Your task to perform on an android device: toggle priority inbox in the gmail app Image 0: 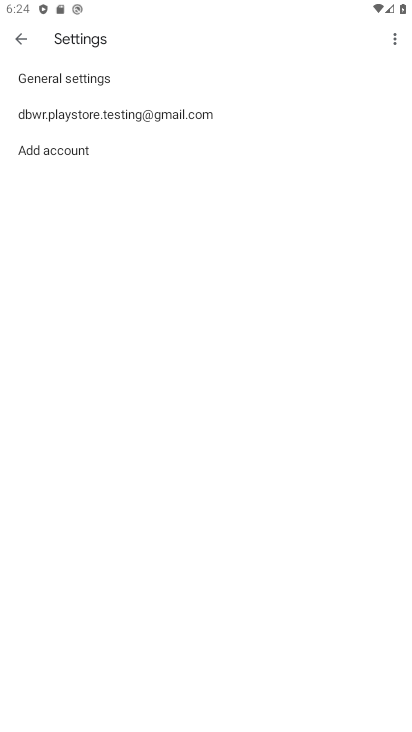
Step 0: click (83, 114)
Your task to perform on an android device: toggle priority inbox in the gmail app Image 1: 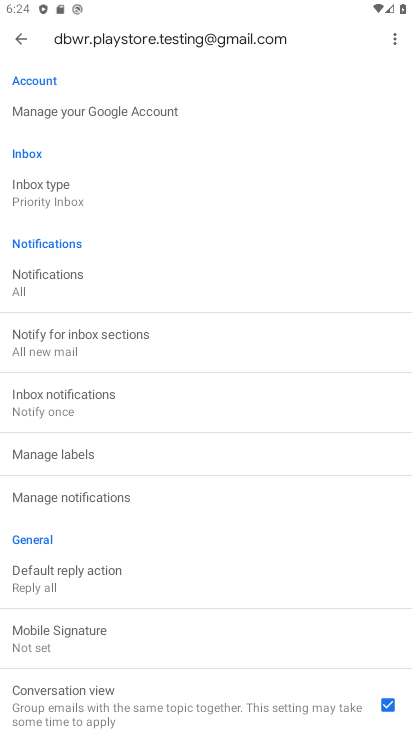
Step 1: click (58, 200)
Your task to perform on an android device: toggle priority inbox in the gmail app Image 2: 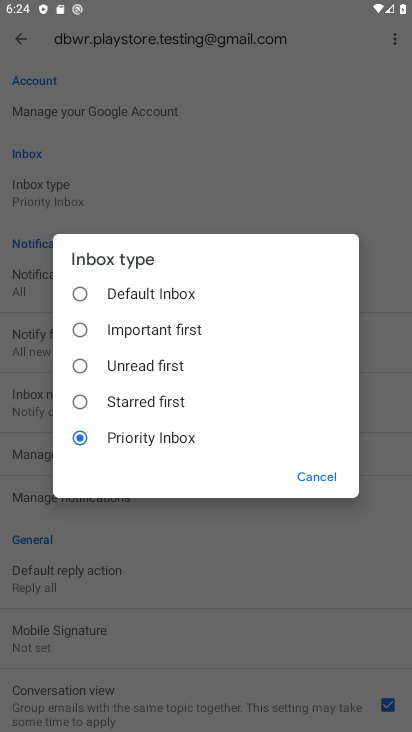
Step 2: click (82, 289)
Your task to perform on an android device: toggle priority inbox in the gmail app Image 3: 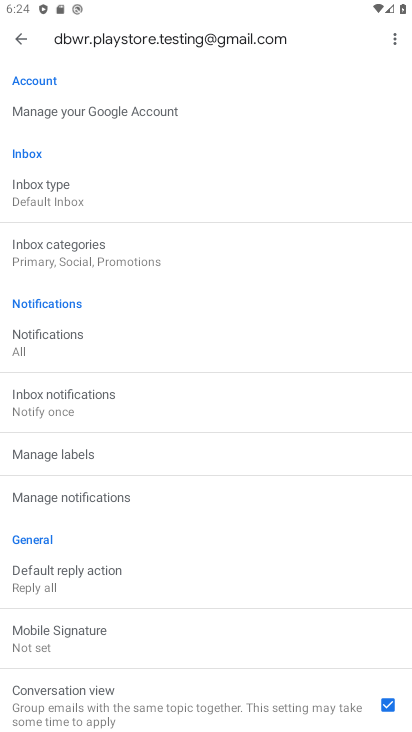
Step 3: task complete